Your task to perform on an android device: Search for Mexican restaurants on Maps Image 0: 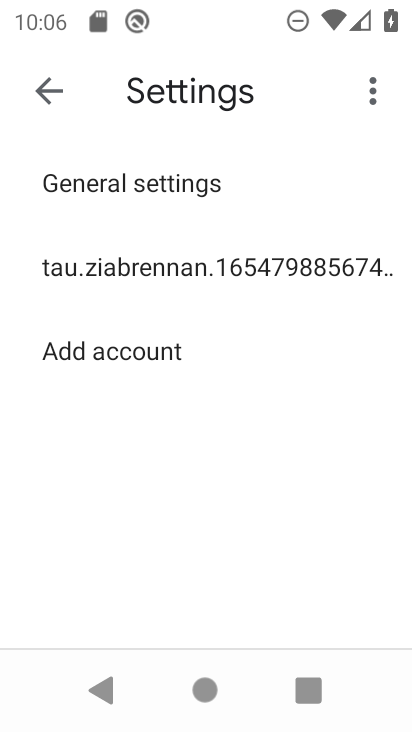
Step 0: press home button
Your task to perform on an android device: Search for Mexican restaurants on Maps Image 1: 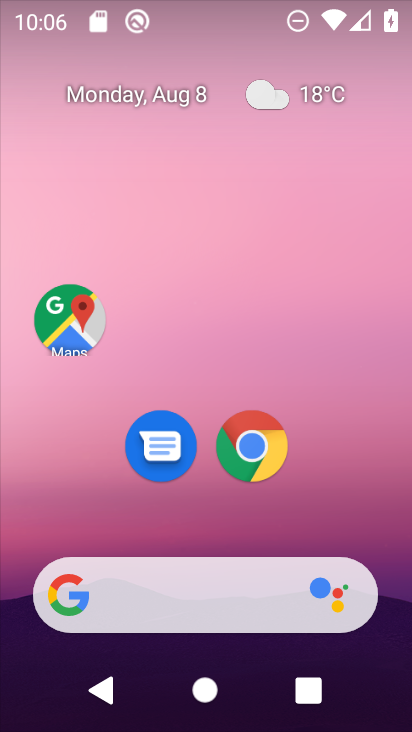
Step 1: click (70, 321)
Your task to perform on an android device: Search for Mexican restaurants on Maps Image 2: 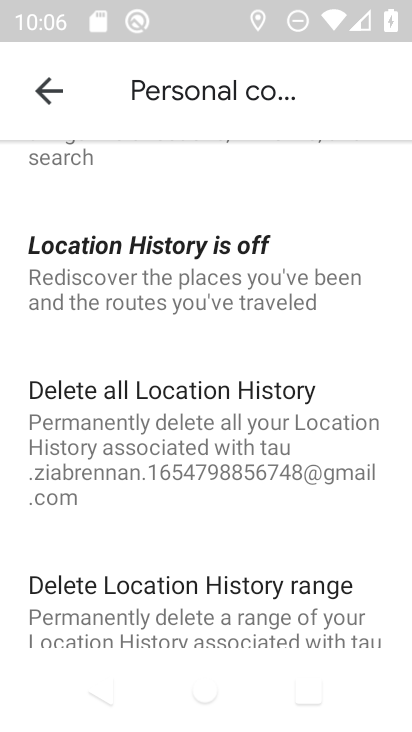
Step 2: press back button
Your task to perform on an android device: Search for Mexican restaurants on Maps Image 3: 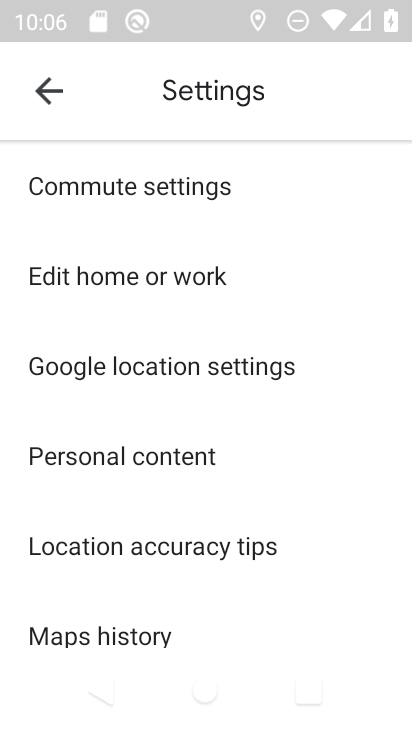
Step 3: press back button
Your task to perform on an android device: Search for Mexican restaurants on Maps Image 4: 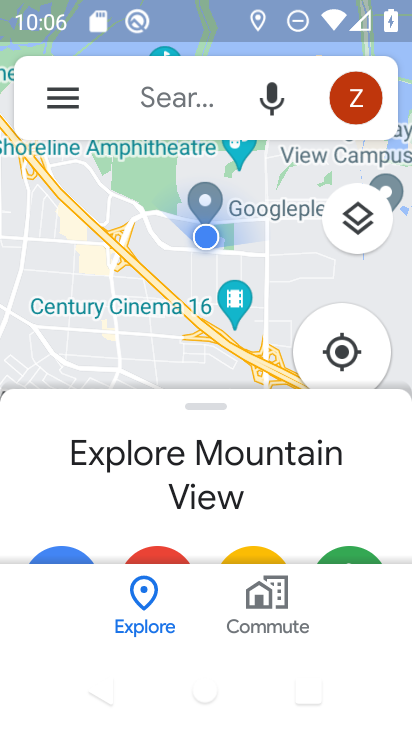
Step 4: click (156, 97)
Your task to perform on an android device: Search for Mexican restaurants on Maps Image 5: 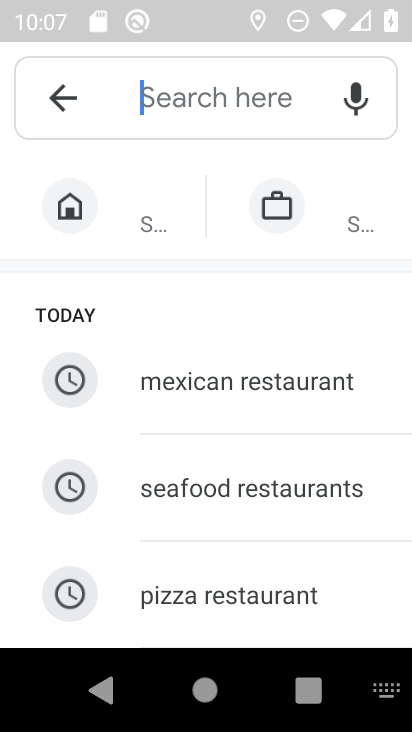
Step 5: type "mexican restaurants"
Your task to perform on an android device: Search for Mexican restaurants on Maps Image 6: 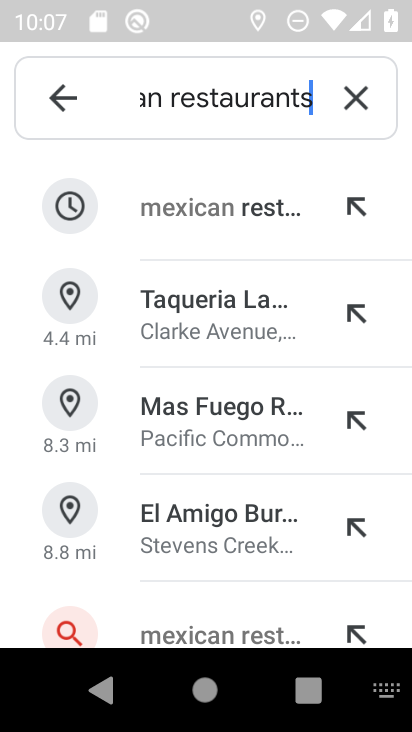
Step 6: click (193, 201)
Your task to perform on an android device: Search for Mexican restaurants on Maps Image 7: 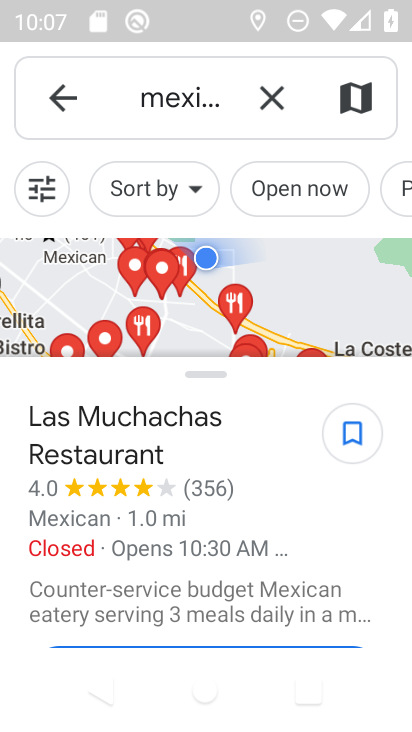
Step 7: task complete